Your task to perform on an android device: open chrome and create a bookmark for the current page Image 0: 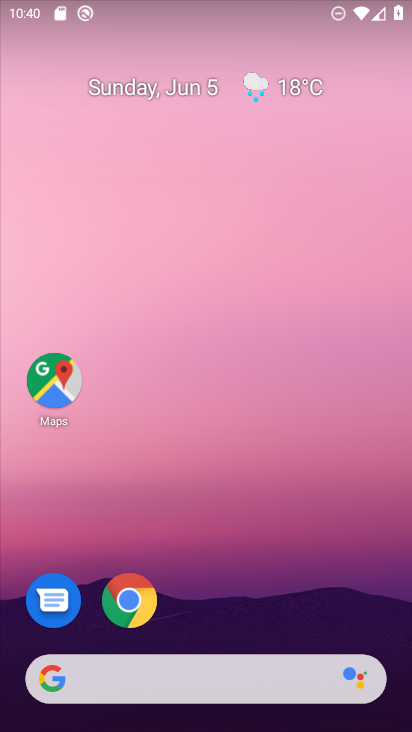
Step 0: click (119, 597)
Your task to perform on an android device: open chrome and create a bookmark for the current page Image 1: 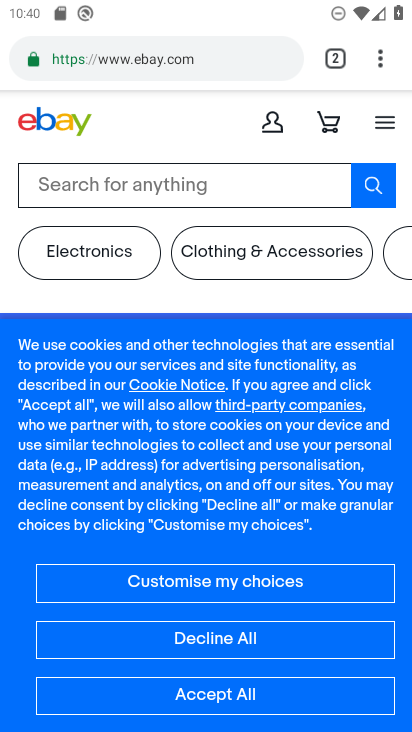
Step 1: task complete